Your task to perform on an android device: Open display settings Image 0: 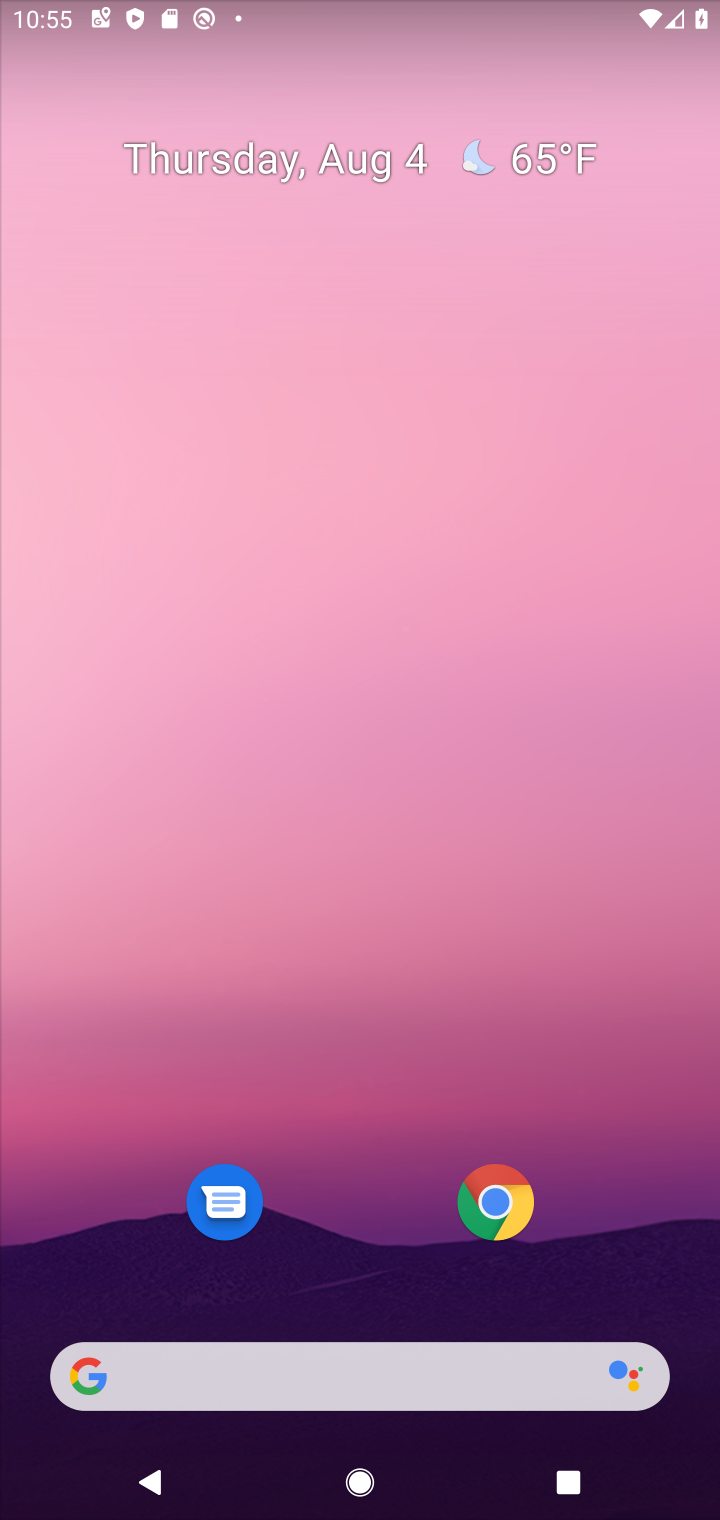
Step 0: drag from (382, 1149) to (578, 20)
Your task to perform on an android device: Open display settings Image 1: 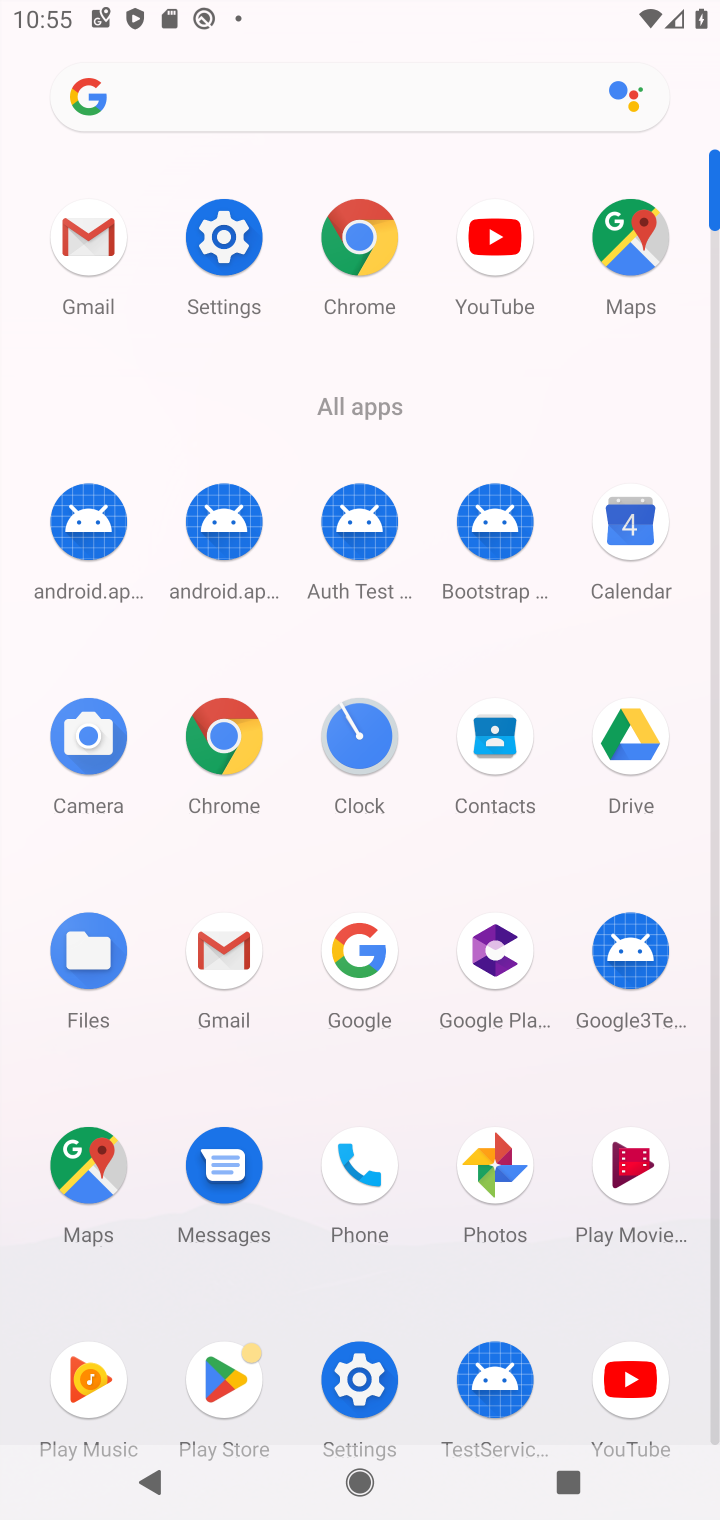
Step 1: click (219, 211)
Your task to perform on an android device: Open display settings Image 2: 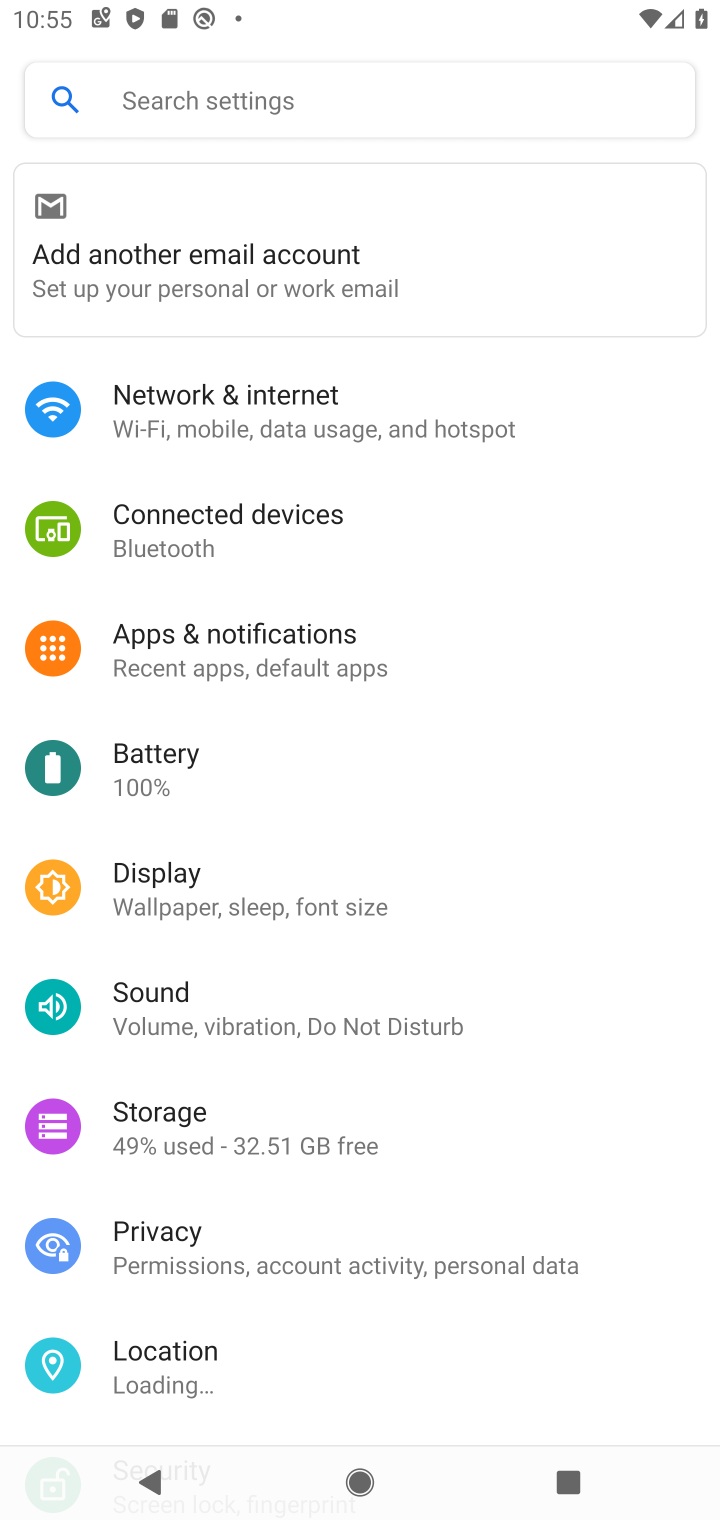
Step 2: click (216, 889)
Your task to perform on an android device: Open display settings Image 3: 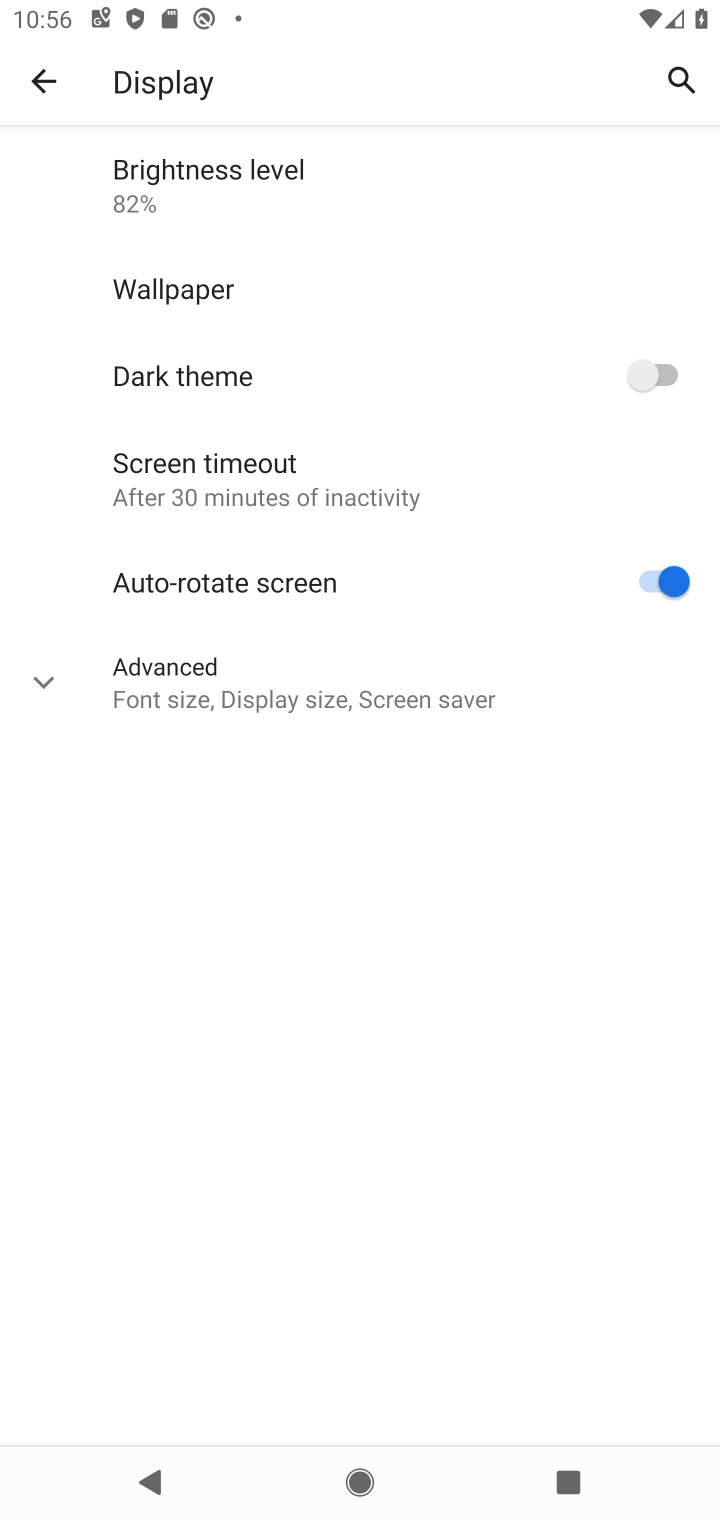
Step 3: task complete